Your task to perform on an android device: see tabs open on other devices in the chrome app Image 0: 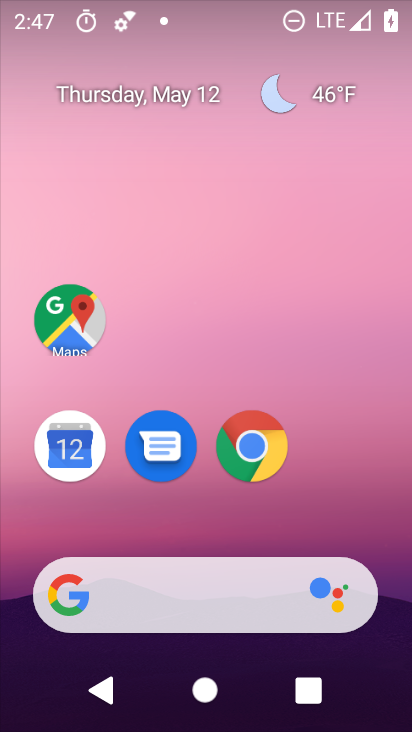
Step 0: click (285, 446)
Your task to perform on an android device: see tabs open on other devices in the chrome app Image 1: 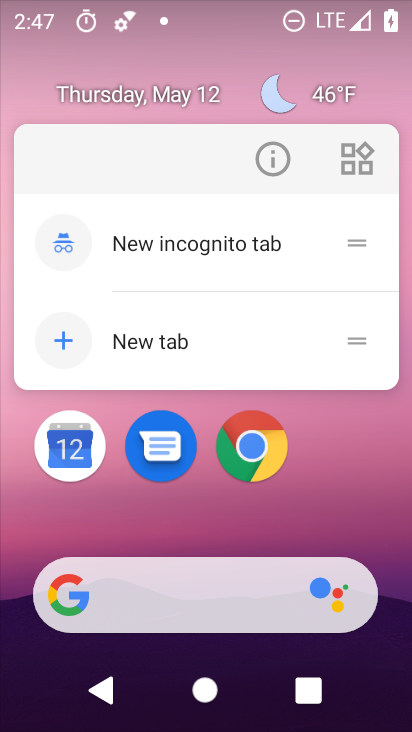
Step 1: click (285, 446)
Your task to perform on an android device: see tabs open on other devices in the chrome app Image 2: 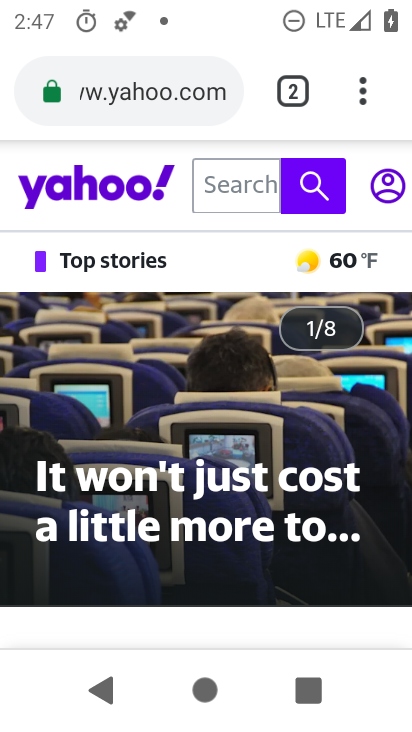
Step 2: task complete